Your task to perform on an android device: Is it going to rain this weekend? Image 0: 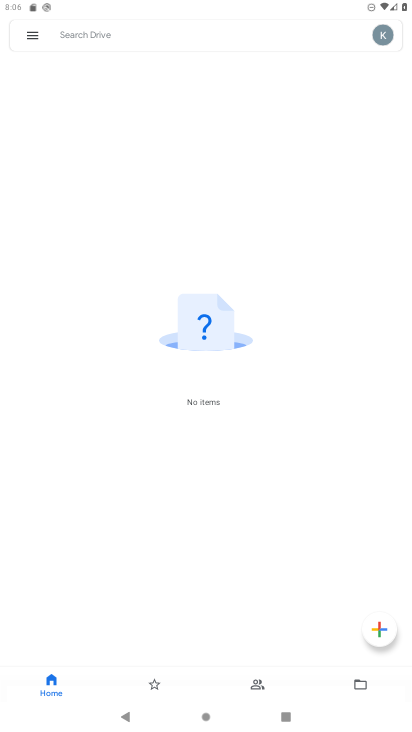
Step 0: press home button
Your task to perform on an android device: Is it going to rain this weekend? Image 1: 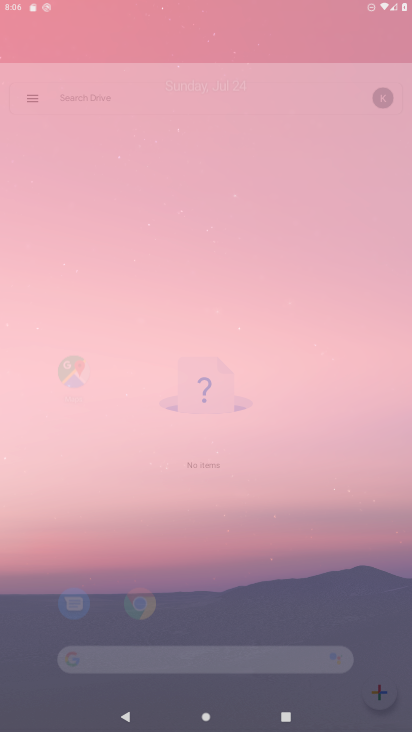
Step 1: drag from (364, 628) to (199, 0)
Your task to perform on an android device: Is it going to rain this weekend? Image 2: 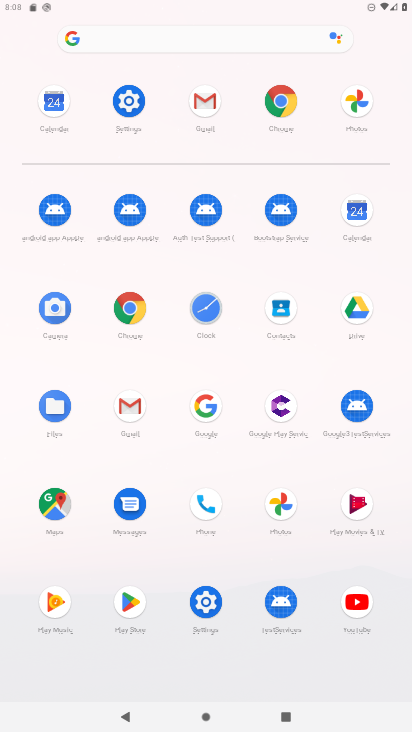
Step 2: click (220, 404)
Your task to perform on an android device: Is it going to rain this weekend? Image 3: 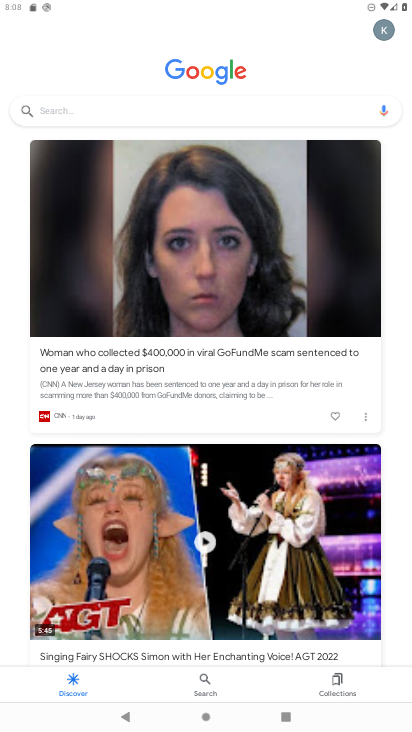
Step 3: type "Is it going to rain this weekend?"
Your task to perform on an android device: Is it going to rain this weekend? Image 4: 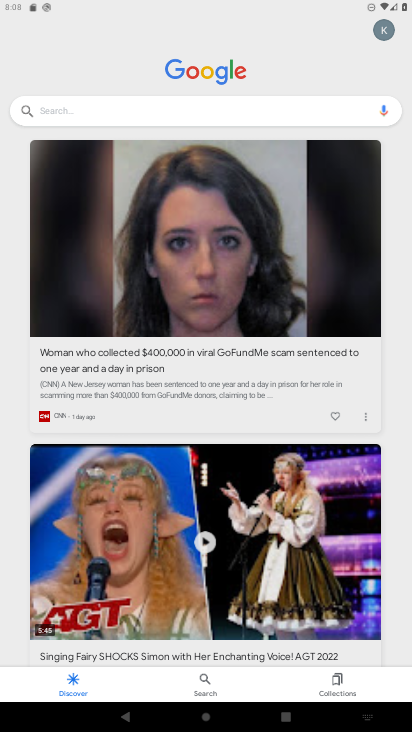
Step 4: click (71, 109)
Your task to perform on an android device: Is it going to rain this weekend? Image 5: 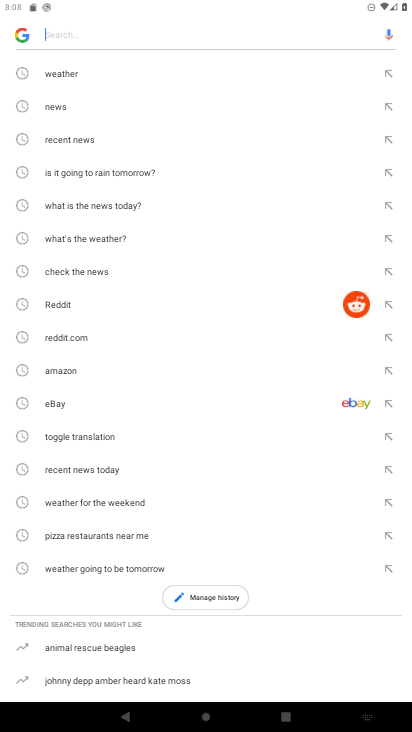
Step 5: type "Is it going to rain this weekend?"
Your task to perform on an android device: Is it going to rain this weekend? Image 6: 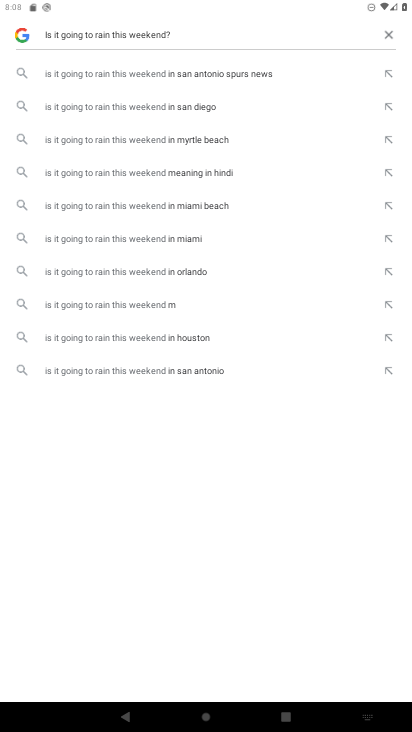
Step 6: task complete